Your task to perform on an android device: change the clock display to digital Image 0: 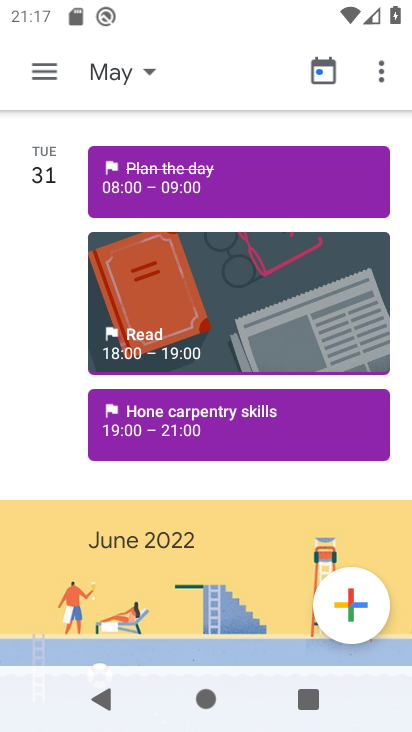
Step 0: drag from (248, 586) to (287, 253)
Your task to perform on an android device: change the clock display to digital Image 1: 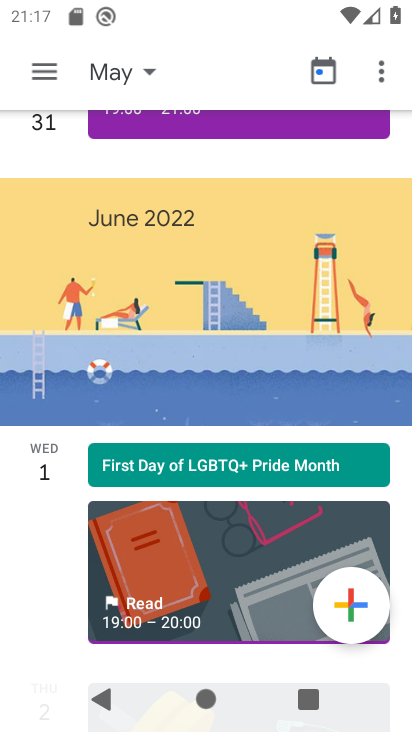
Step 1: drag from (302, 138) to (394, 582)
Your task to perform on an android device: change the clock display to digital Image 2: 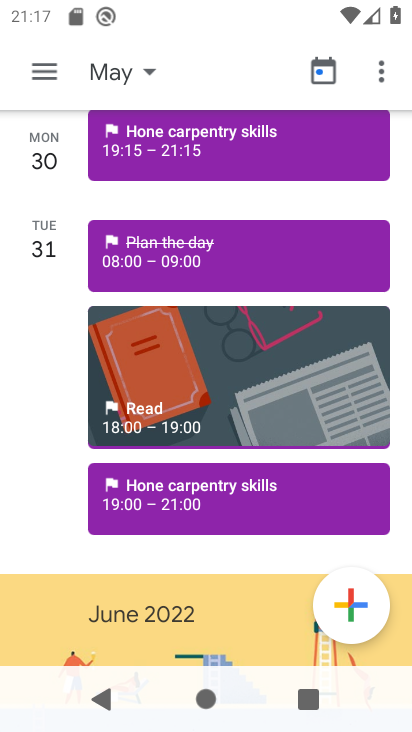
Step 2: press home button
Your task to perform on an android device: change the clock display to digital Image 3: 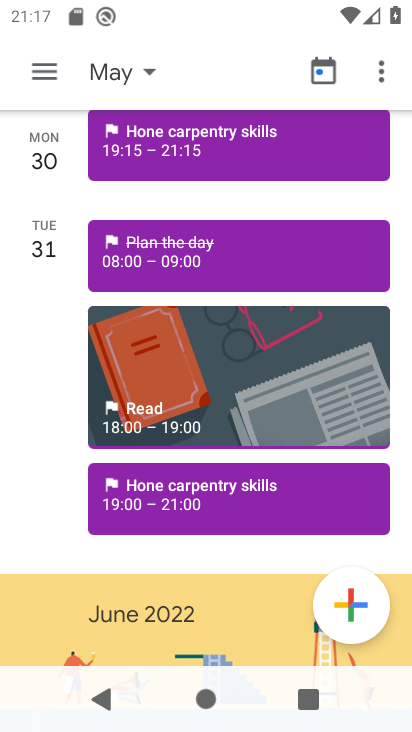
Step 3: drag from (394, 582) to (411, 472)
Your task to perform on an android device: change the clock display to digital Image 4: 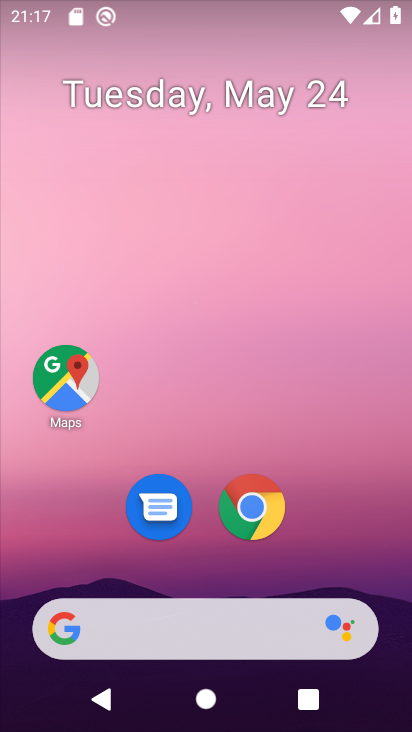
Step 4: drag from (196, 579) to (236, 245)
Your task to perform on an android device: change the clock display to digital Image 5: 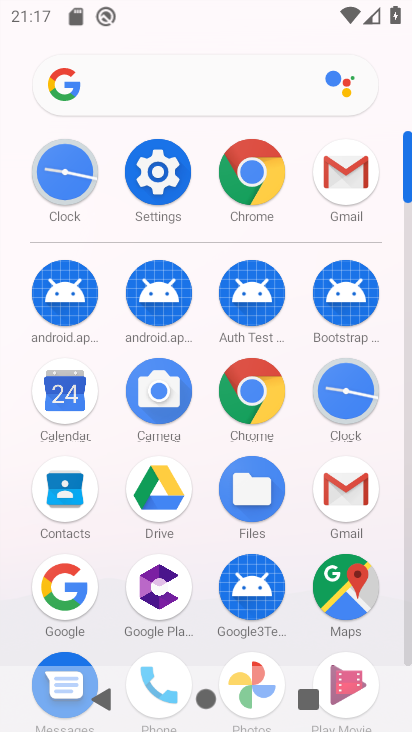
Step 5: click (347, 395)
Your task to perform on an android device: change the clock display to digital Image 6: 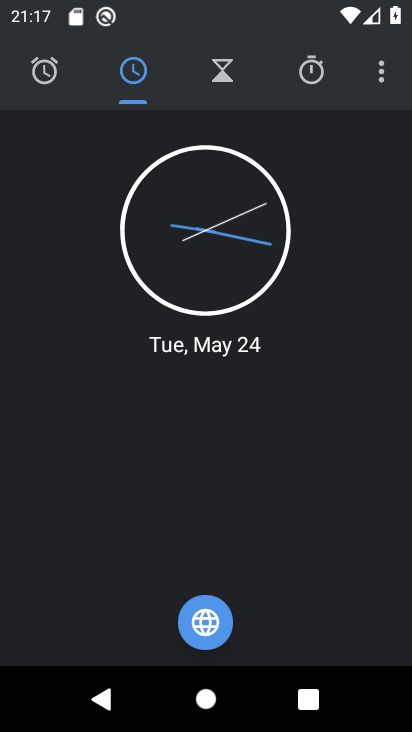
Step 6: click (377, 88)
Your task to perform on an android device: change the clock display to digital Image 7: 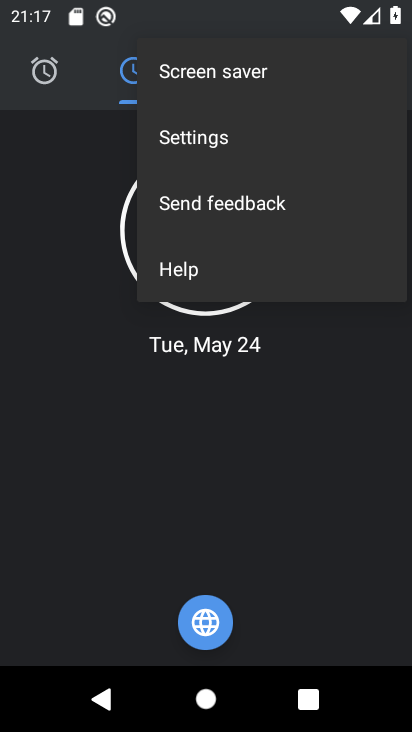
Step 7: click (221, 150)
Your task to perform on an android device: change the clock display to digital Image 8: 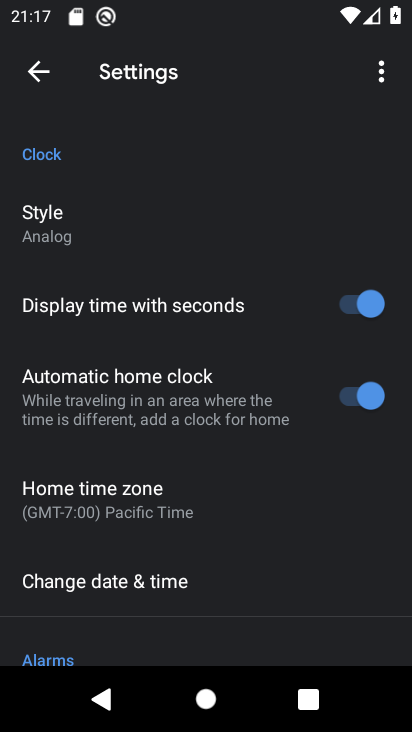
Step 8: drag from (215, 574) to (251, 172)
Your task to perform on an android device: change the clock display to digital Image 9: 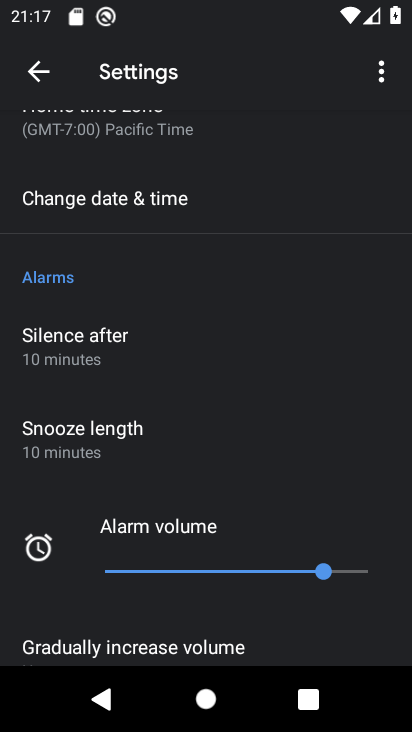
Step 9: drag from (266, 250) to (311, 646)
Your task to perform on an android device: change the clock display to digital Image 10: 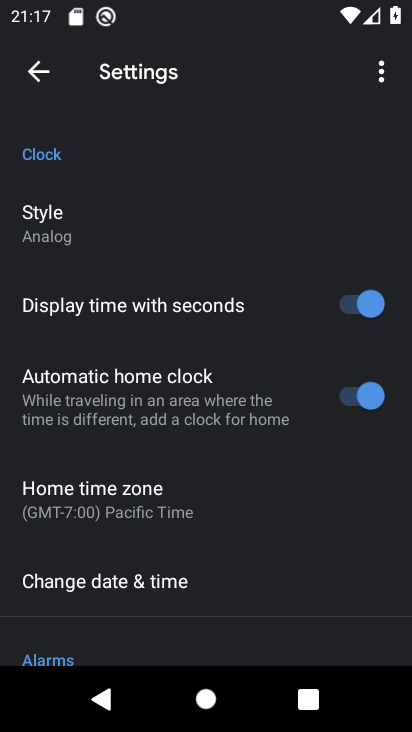
Step 10: click (100, 218)
Your task to perform on an android device: change the clock display to digital Image 11: 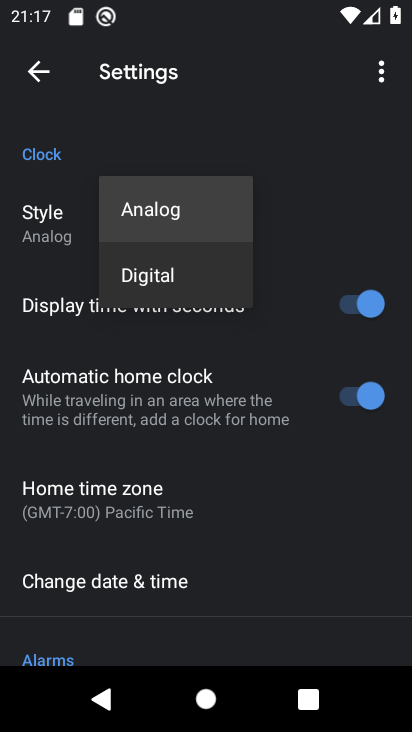
Step 11: click (183, 273)
Your task to perform on an android device: change the clock display to digital Image 12: 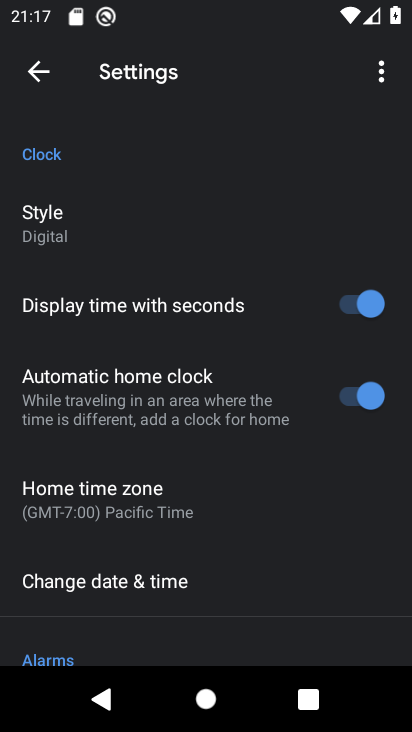
Step 12: task complete